Your task to perform on an android device: refresh tabs in the chrome app Image 0: 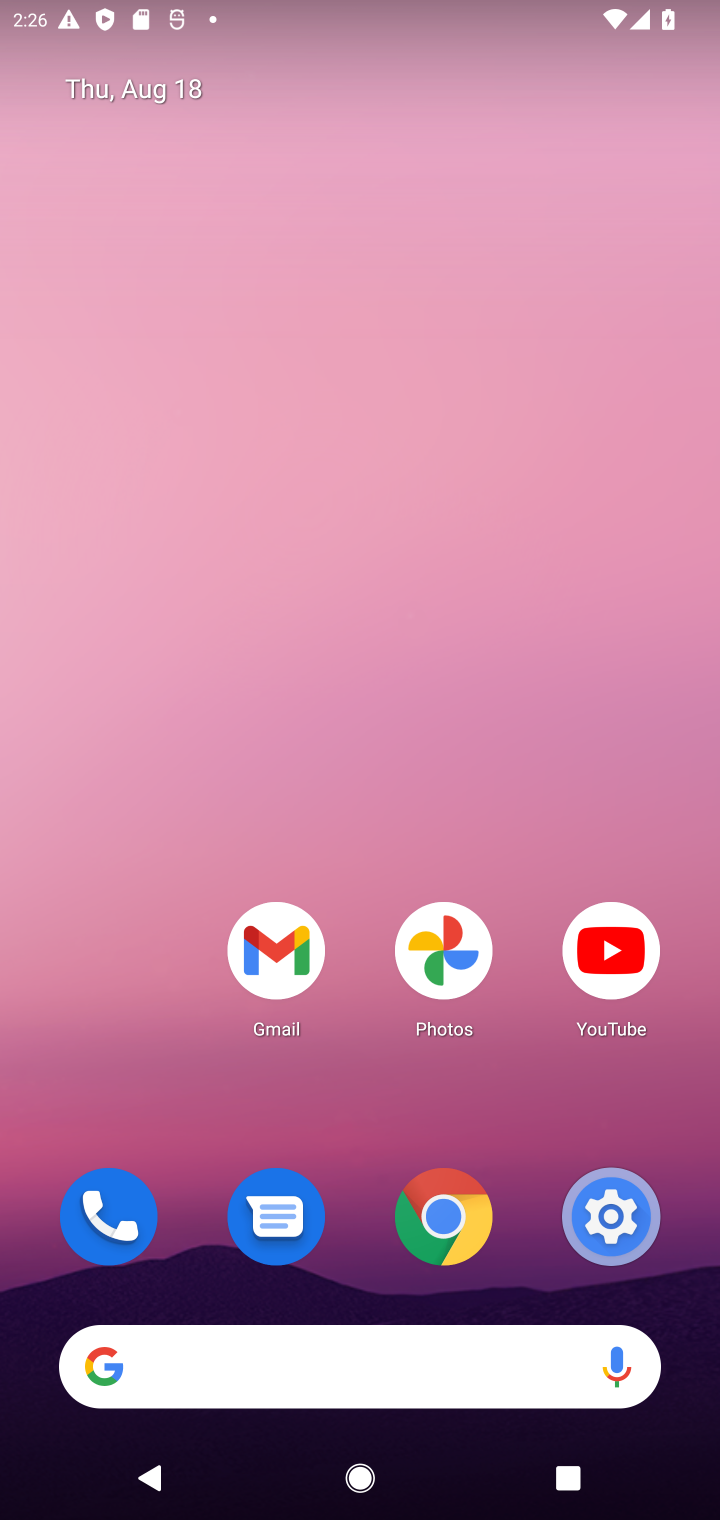
Step 0: click (440, 1210)
Your task to perform on an android device: refresh tabs in the chrome app Image 1: 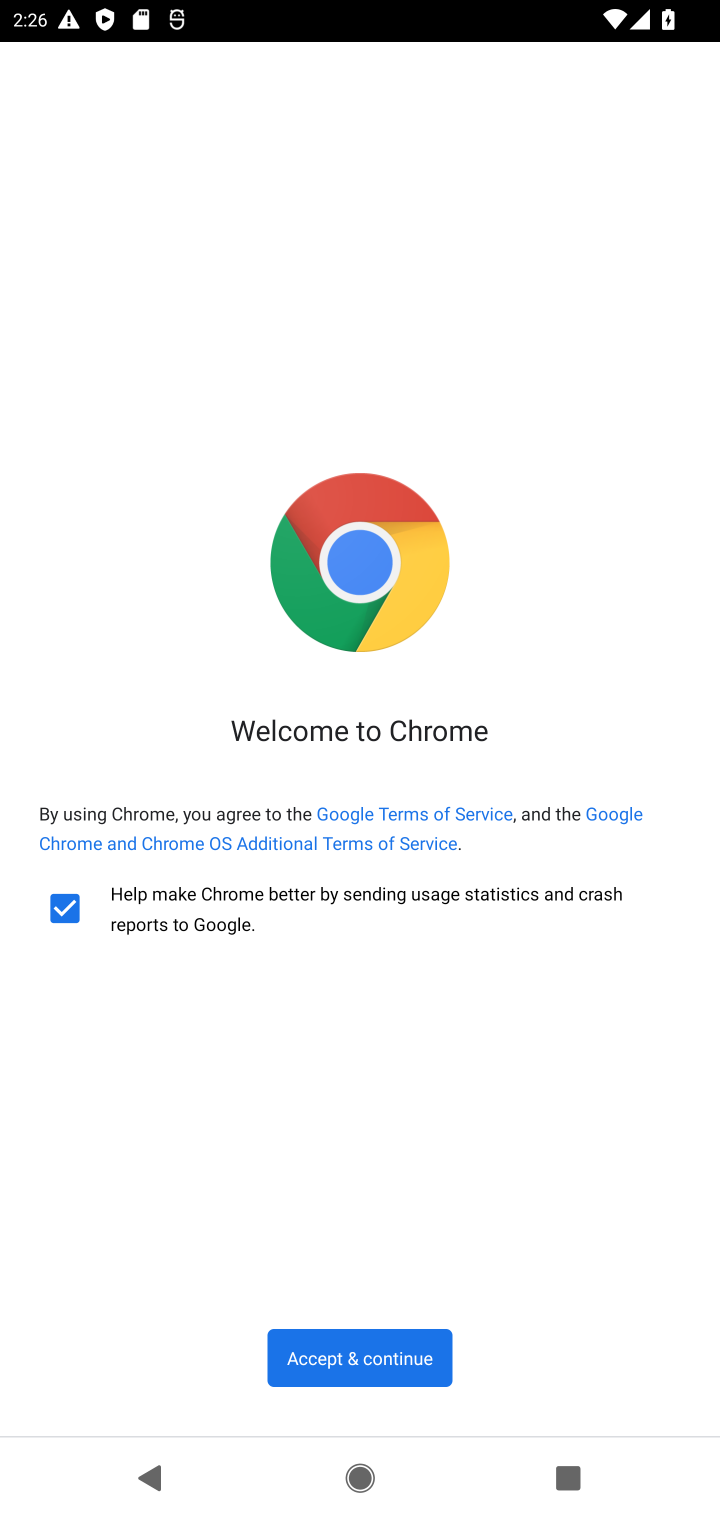
Step 1: click (408, 1356)
Your task to perform on an android device: refresh tabs in the chrome app Image 2: 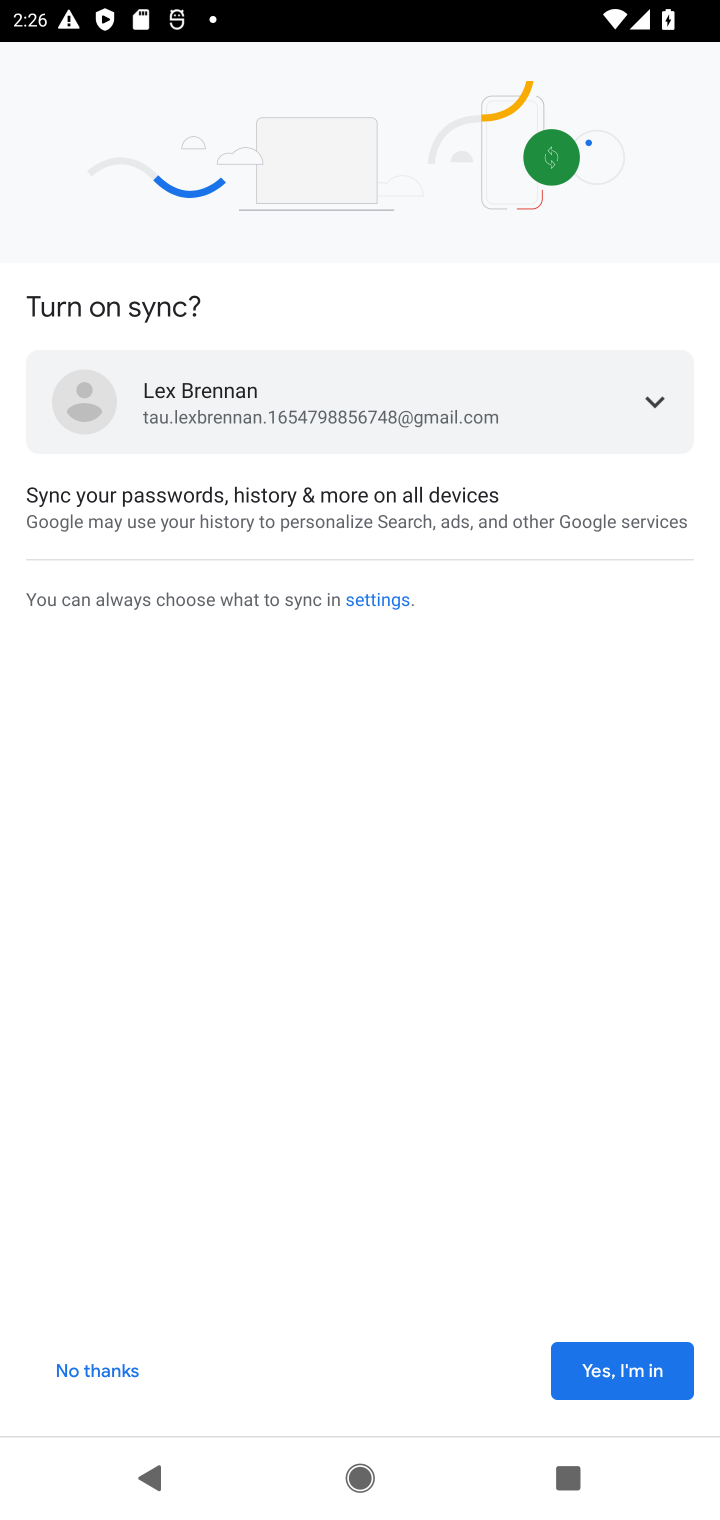
Step 2: click (605, 1370)
Your task to perform on an android device: refresh tabs in the chrome app Image 3: 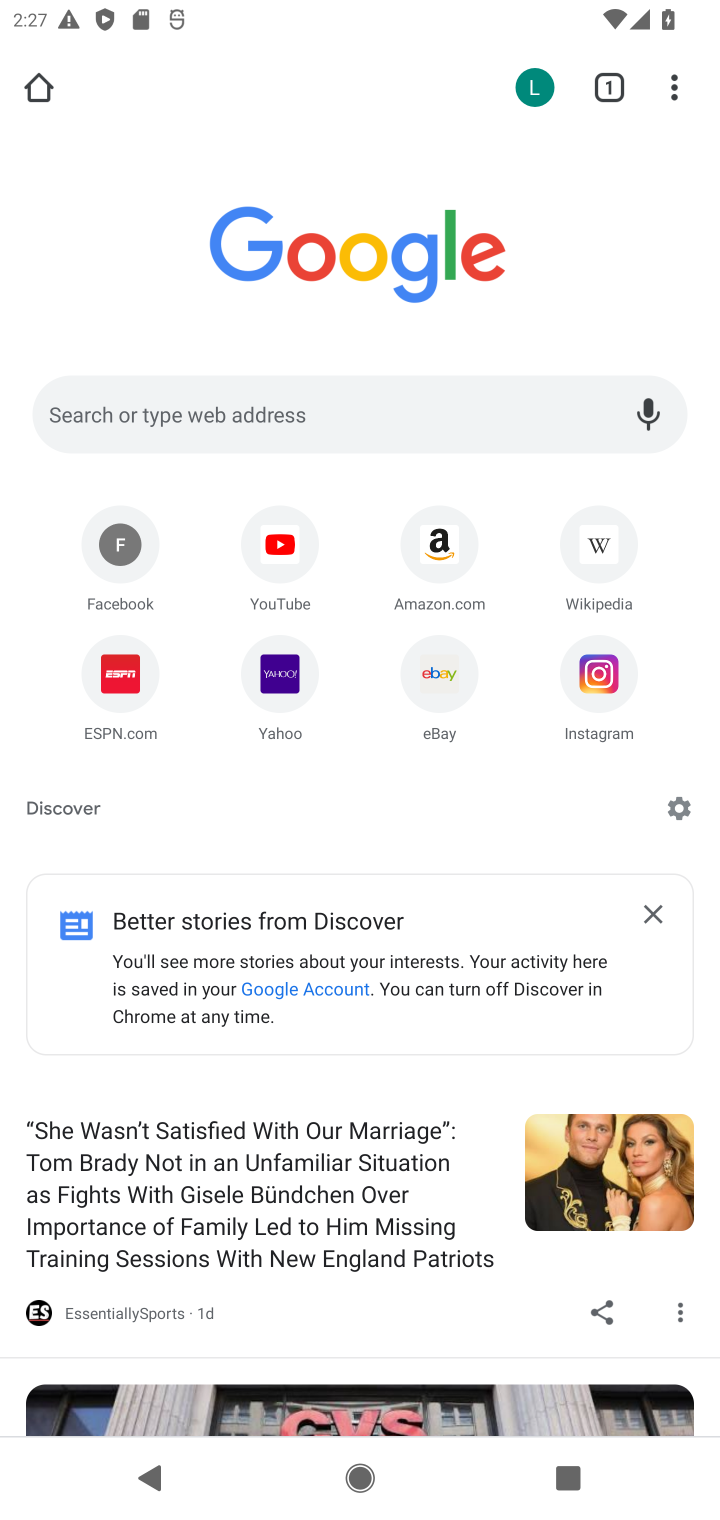
Step 3: click (671, 90)
Your task to perform on an android device: refresh tabs in the chrome app Image 4: 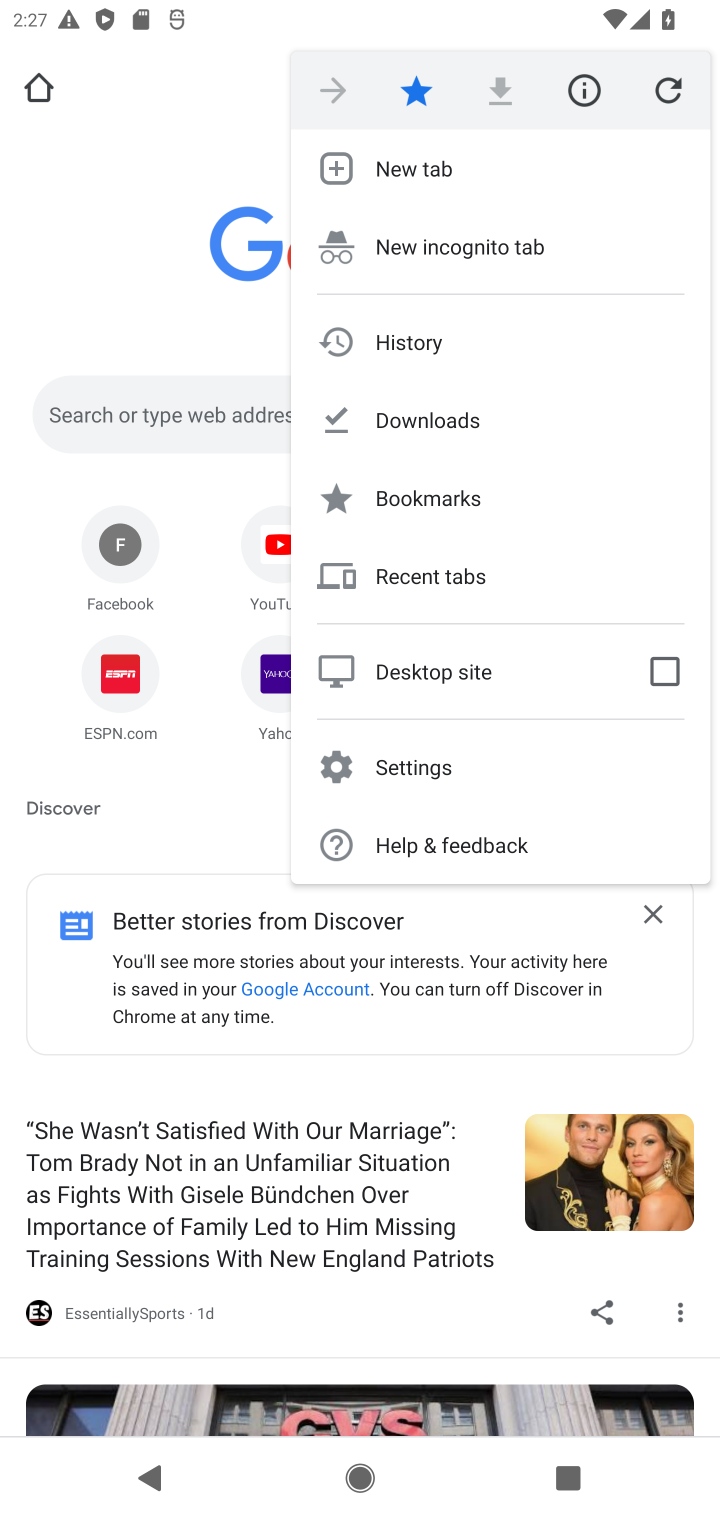
Step 4: click (671, 90)
Your task to perform on an android device: refresh tabs in the chrome app Image 5: 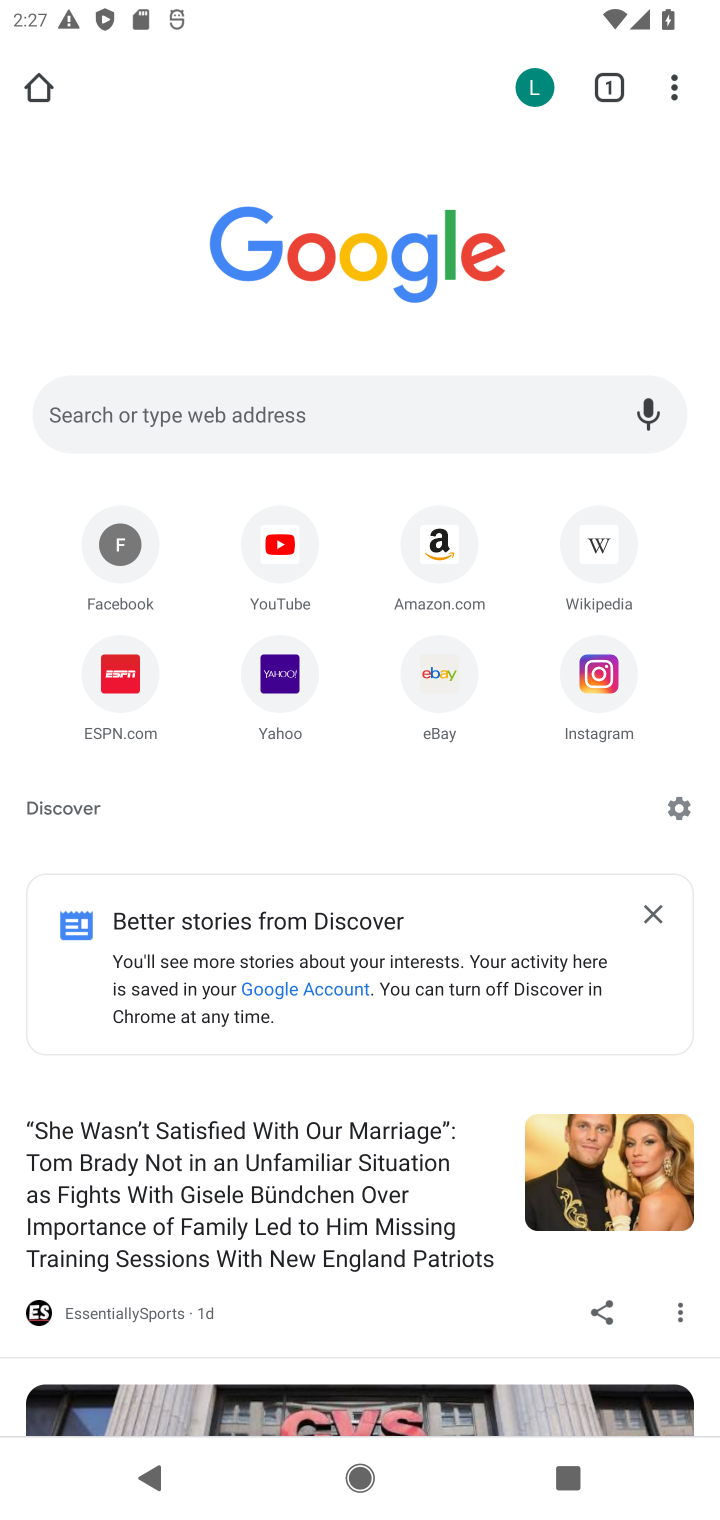
Step 5: task complete